Your task to perform on an android device: set the stopwatch Image 0: 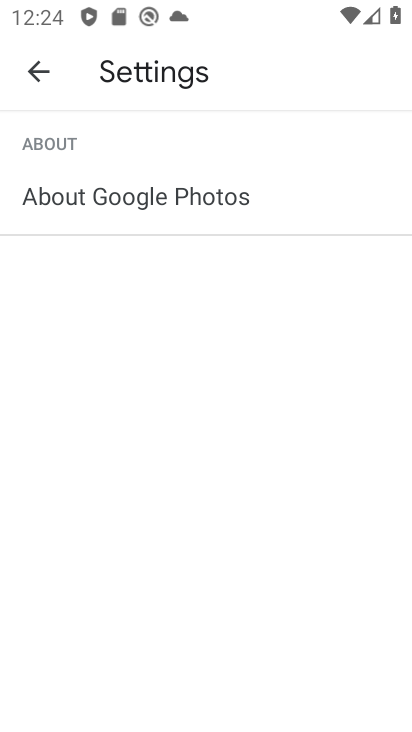
Step 0: press home button
Your task to perform on an android device: set the stopwatch Image 1: 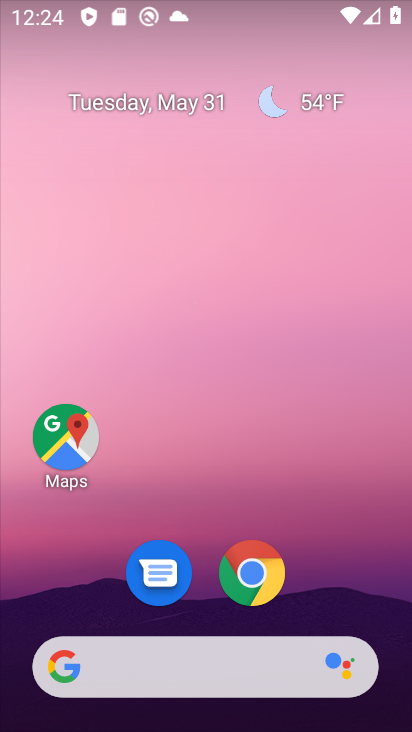
Step 1: drag from (75, 631) to (248, 111)
Your task to perform on an android device: set the stopwatch Image 2: 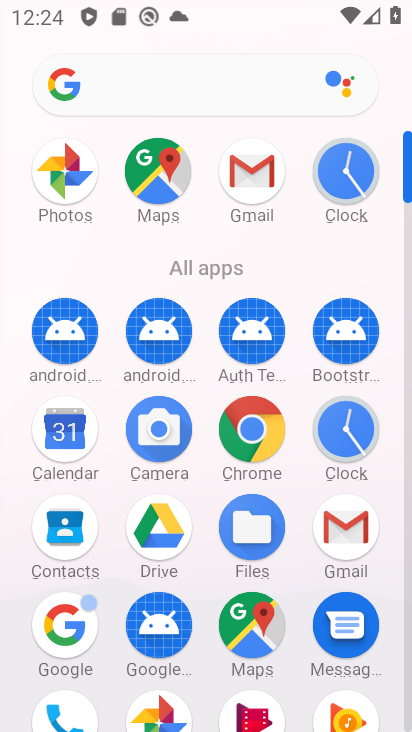
Step 2: click (358, 436)
Your task to perform on an android device: set the stopwatch Image 3: 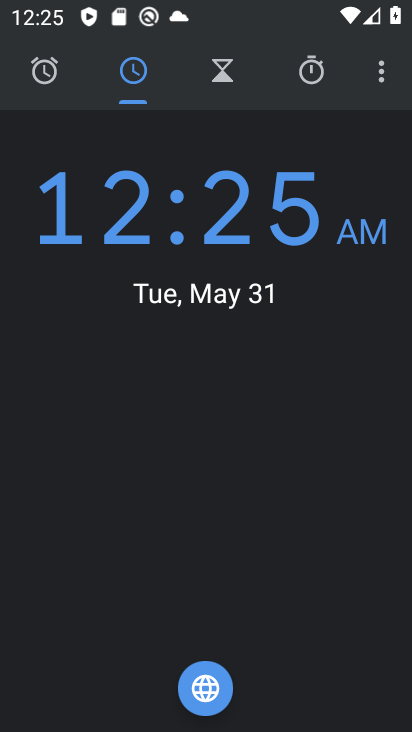
Step 3: click (316, 69)
Your task to perform on an android device: set the stopwatch Image 4: 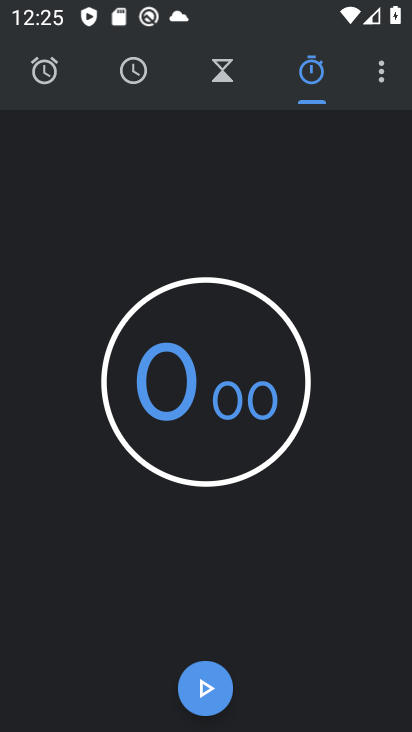
Step 4: click (215, 713)
Your task to perform on an android device: set the stopwatch Image 5: 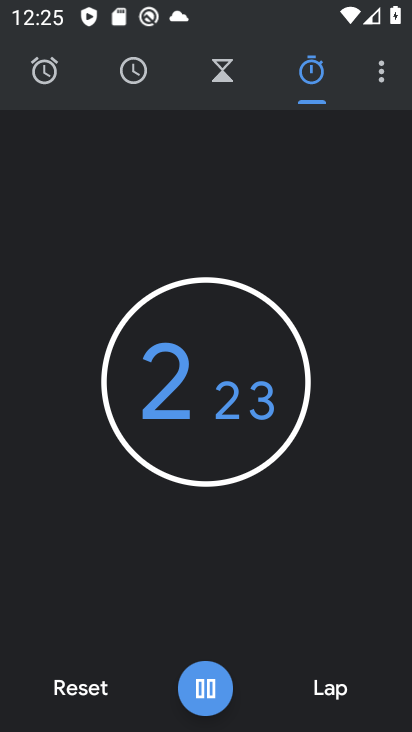
Step 5: task complete